Your task to perform on an android device: Turn on the flashlight Image 0: 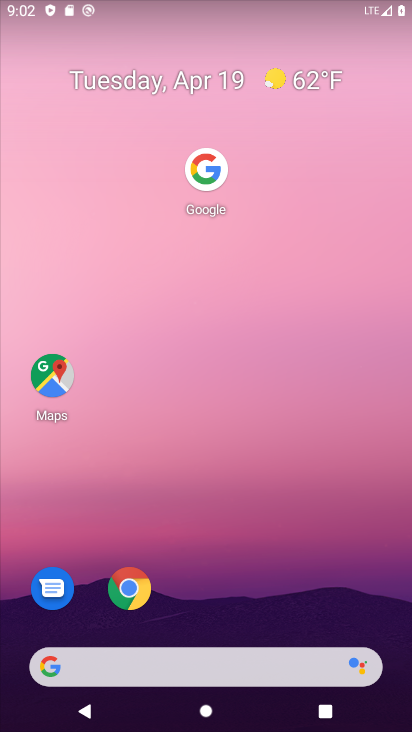
Step 0: drag from (214, 409) to (204, 11)
Your task to perform on an android device: Turn on the flashlight Image 1: 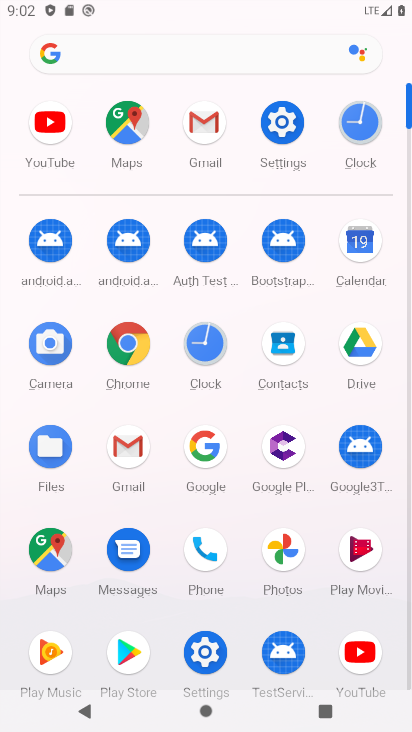
Step 1: click (276, 123)
Your task to perform on an android device: Turn on the flashlight Image 2: 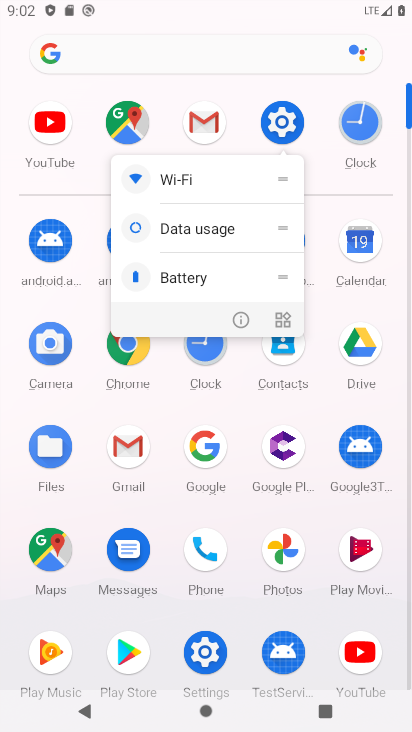
Step 2: click (278, 119)
Your task to perform on an android device: Turn on the flashlight Image 3: 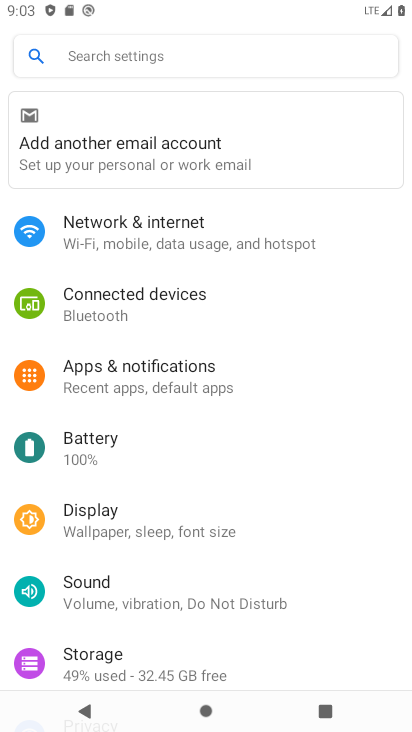
Step 3: click (149, 374)
Your task to perform on an android device: Turn on the flashlight Image 4: 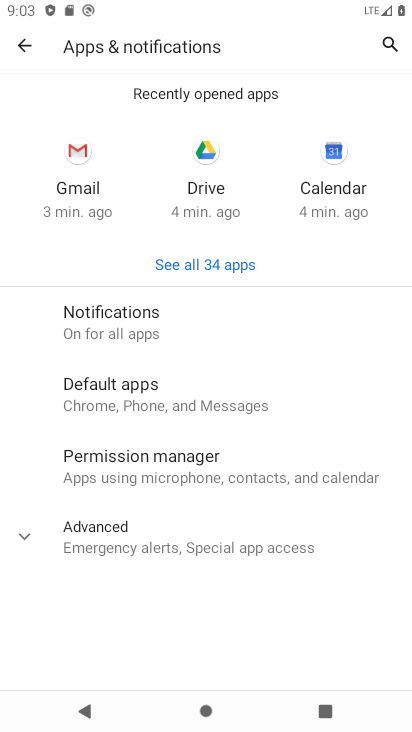
Step 4: click (29, 43)
Your task to perform on an android device: Turn on the flashlight Image 5: 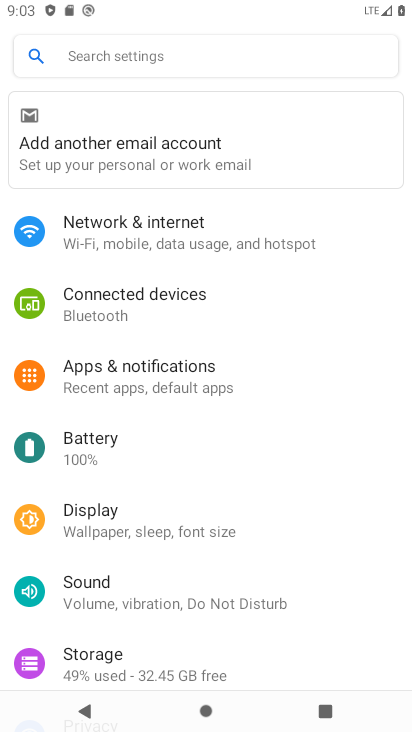
Step 5: task complete